Your task to perform on an android device: open app "Walmart Shopping & Grocery" (install if not already installed) and go to login screen Image 0: 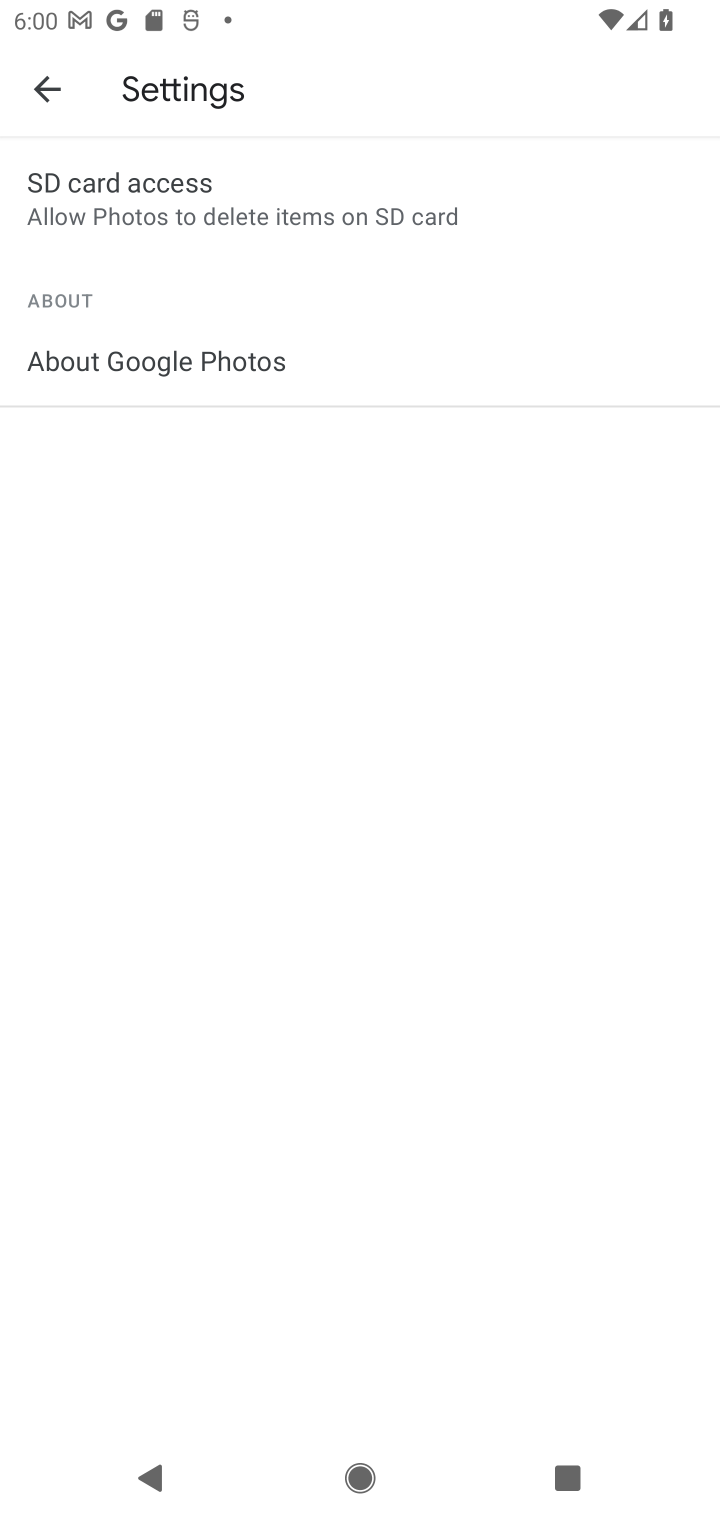
Step 0: press home button
Your task to perform on an android device: open app "Walmart Shopping & Grocery" (install if not already installed) and go to login screen Image 1: 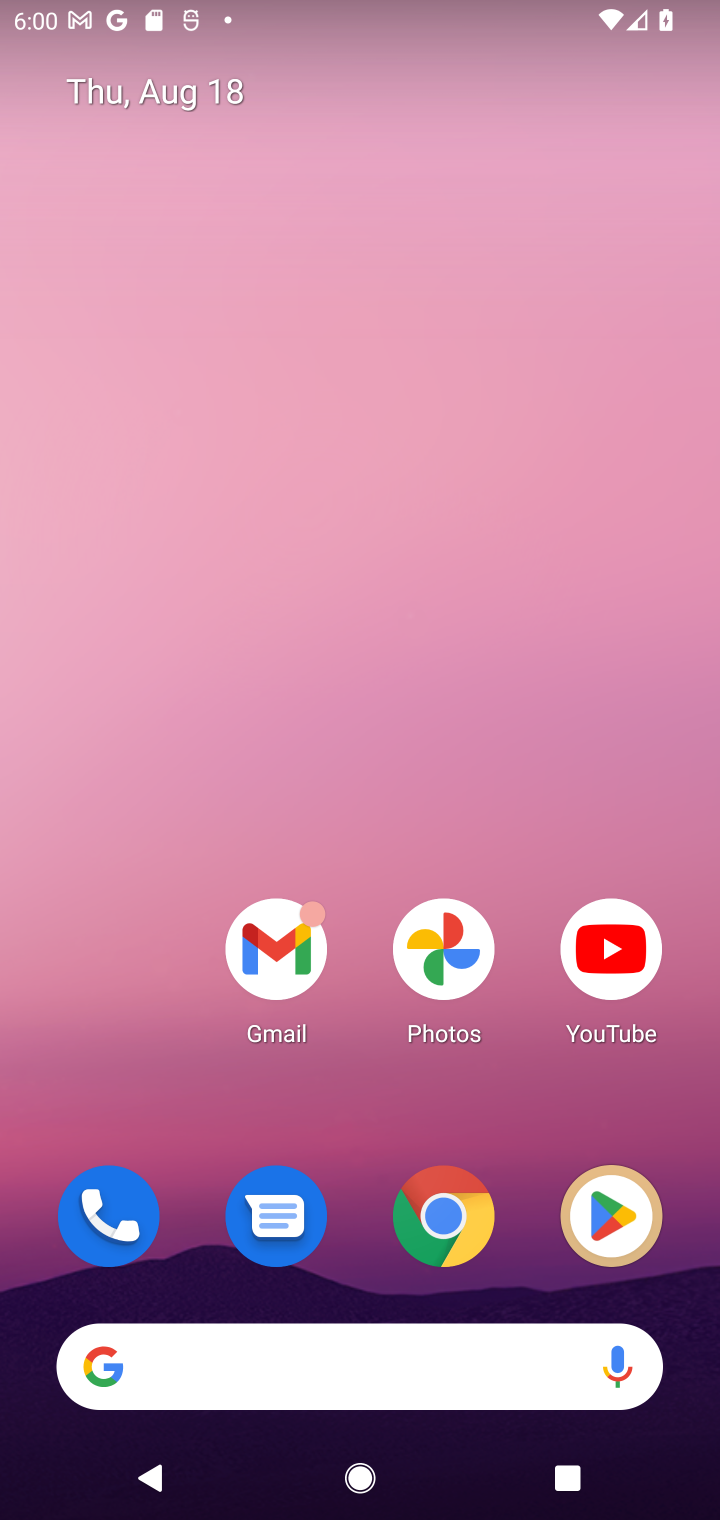
Step 1: click (614, 1213)
Your task to perform on an android device: open app "Walmart Shopping & Grocery" (install if not already installed) and go to login screen Image 2: 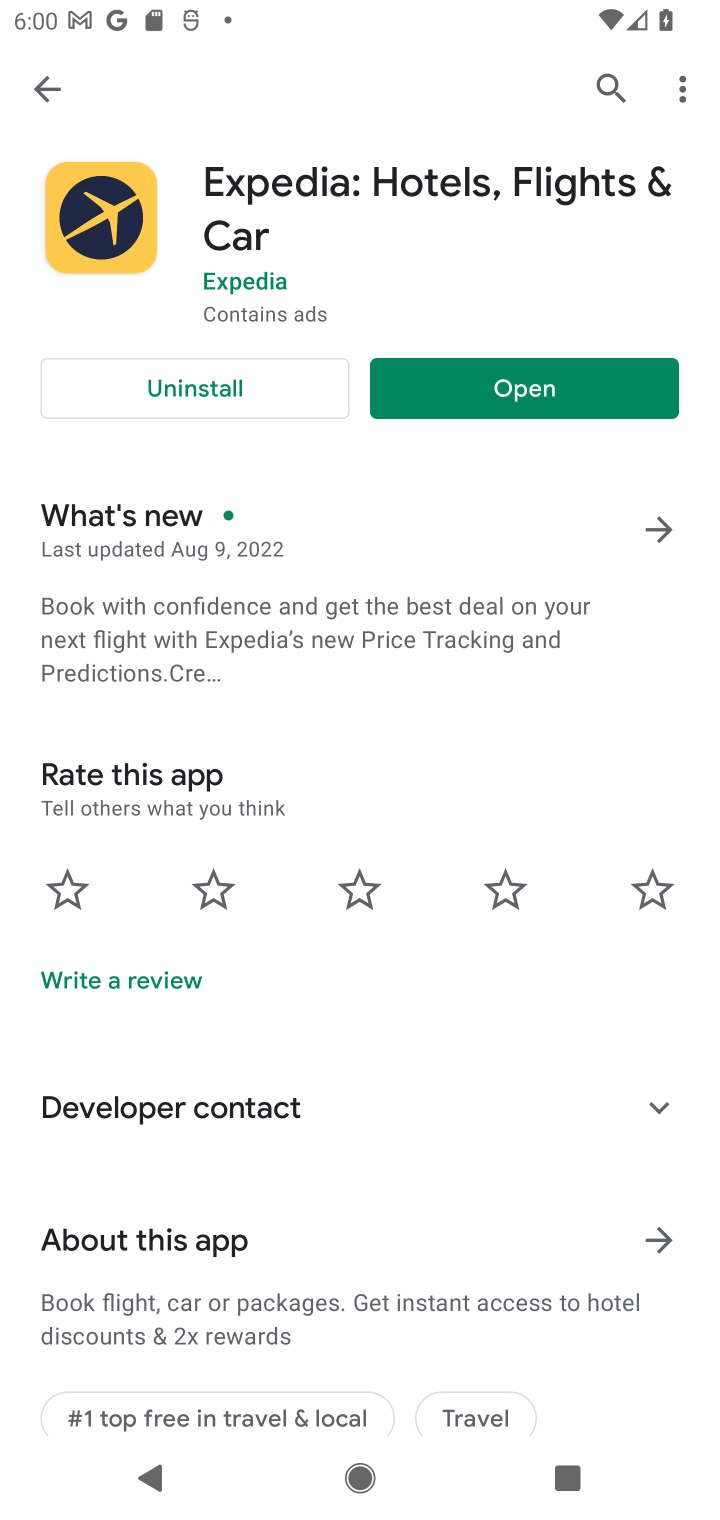
Step 2: click (601, 78)
Your task to perform on an android device: open app "Walmart Shopping & Grocery" (install if not already installed) and go to login screen Image 3: 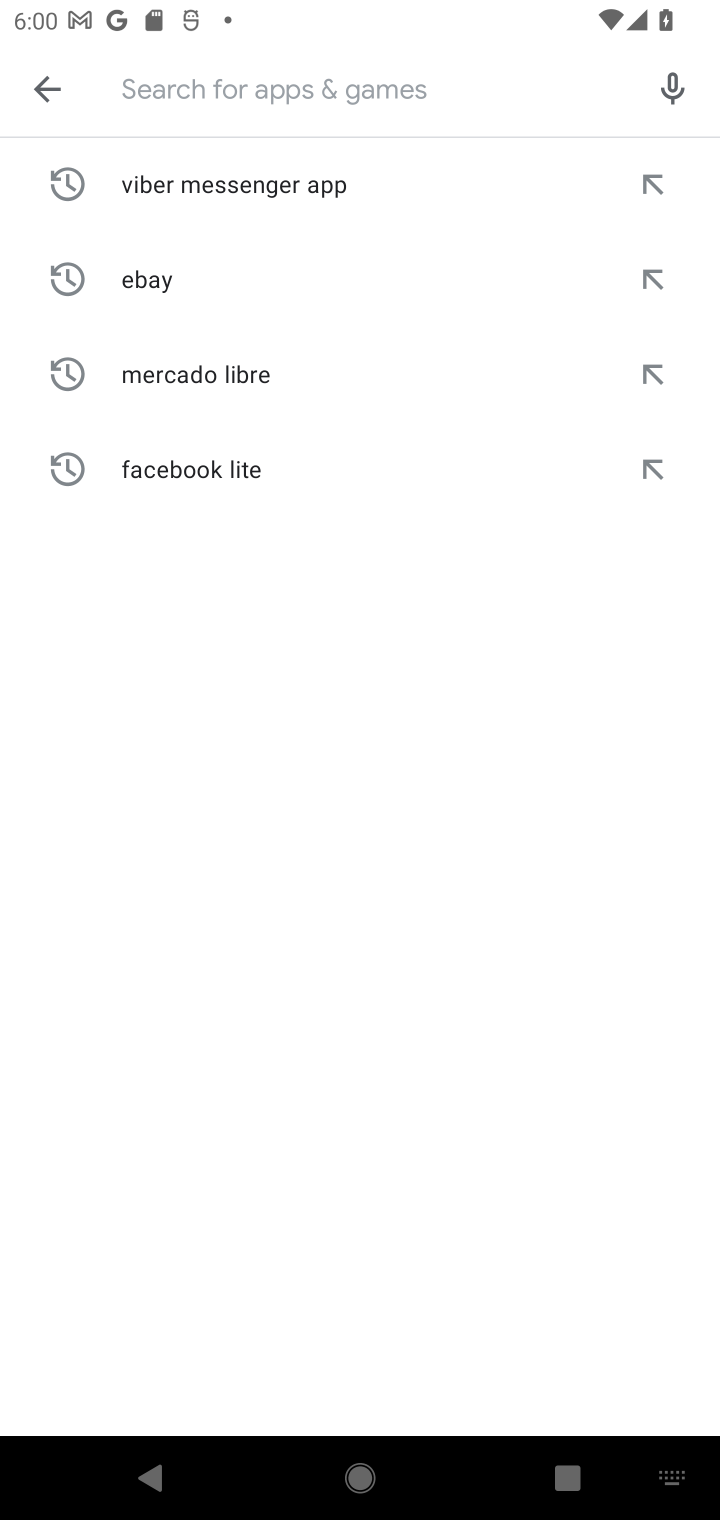
Step 3: type "Walmart Shopping & Grocery"
Your task to perform on an android device: open app "Walmart Shopping & Grocery" (install if not already installed) and go to login screen Image 4: 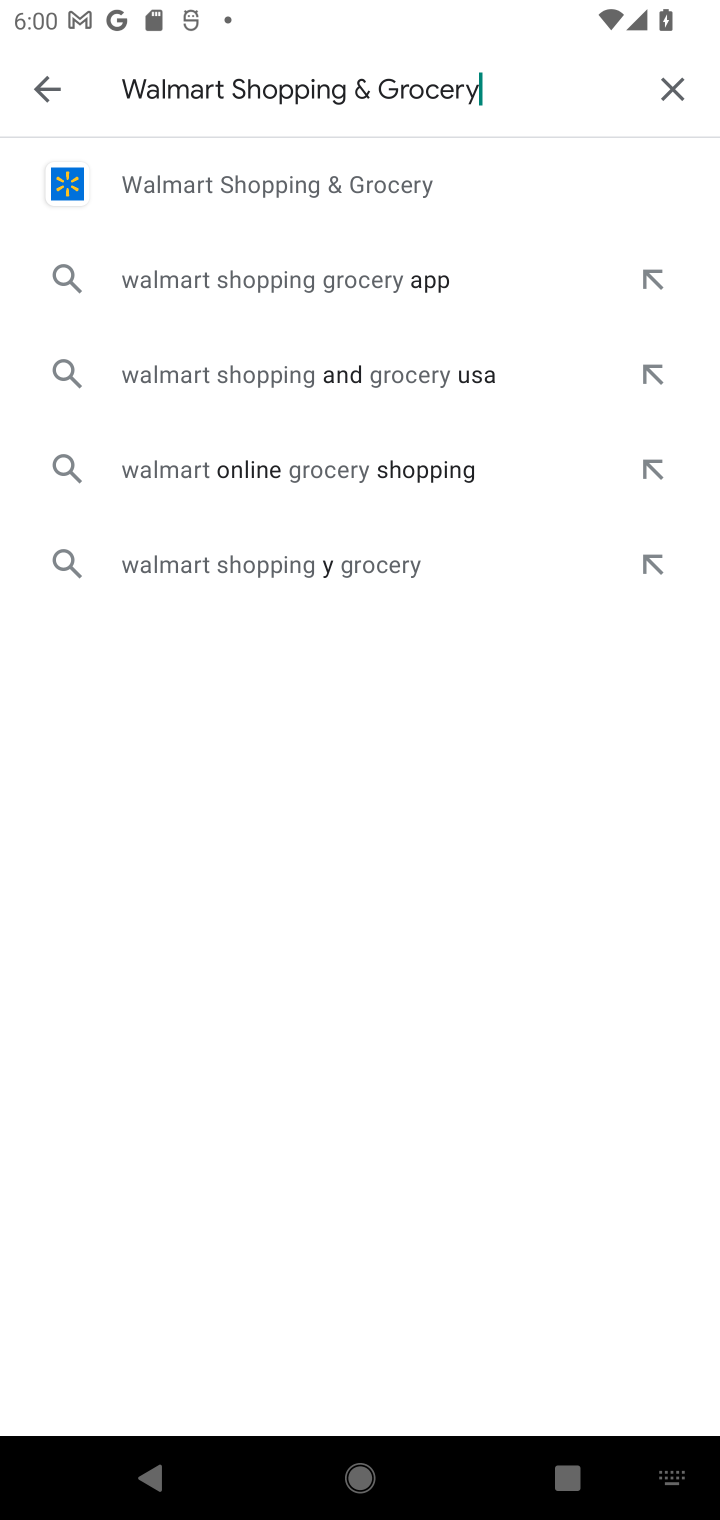
Step 4: click (228, 171)
Your task to perform on an android device: open app "Walmart Shopping & Grocery" (install if not already installed) and go to login screen Image 5: 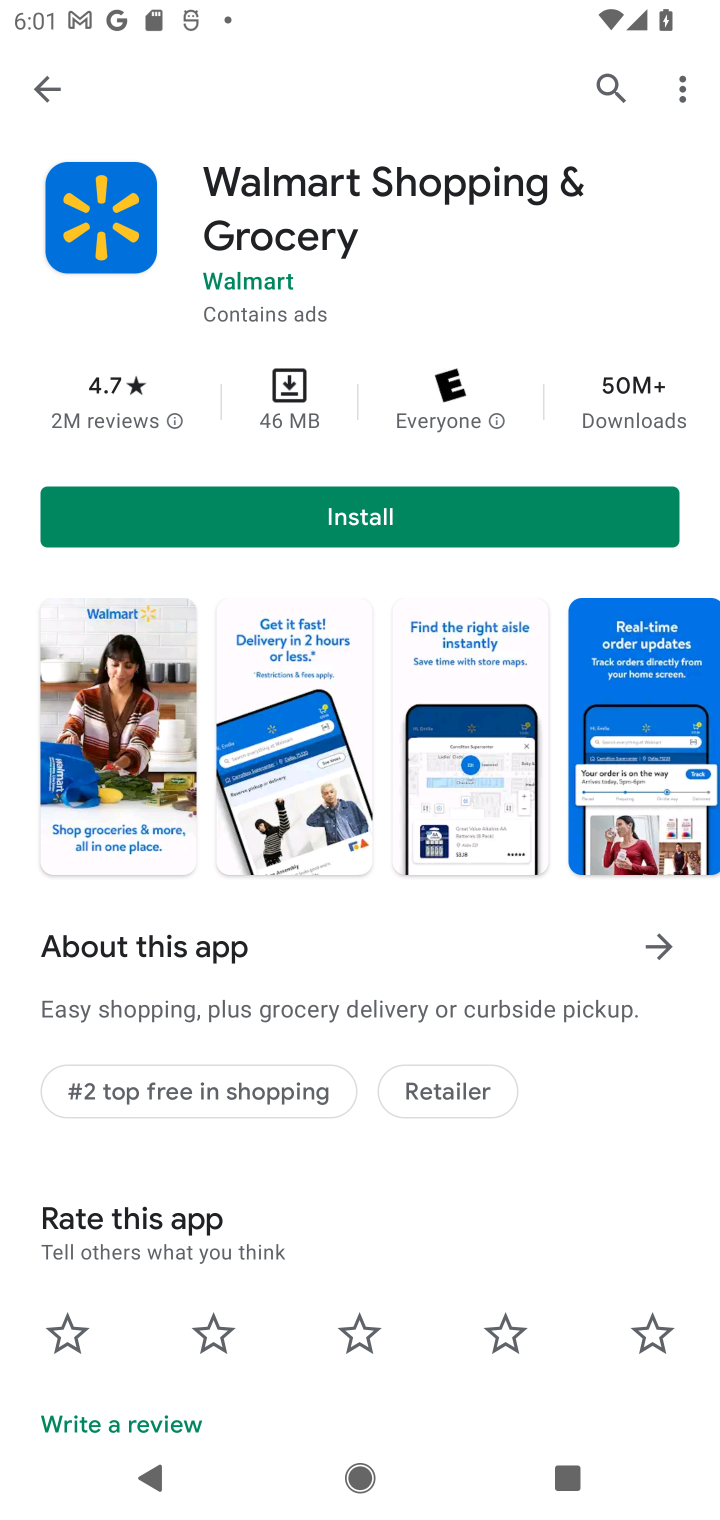
Step 5: click (368, 515)
Your task to perform on an android device: open app "Walmart Shopping & Grocery" (install if not already installed) and go to login screen Image 6: 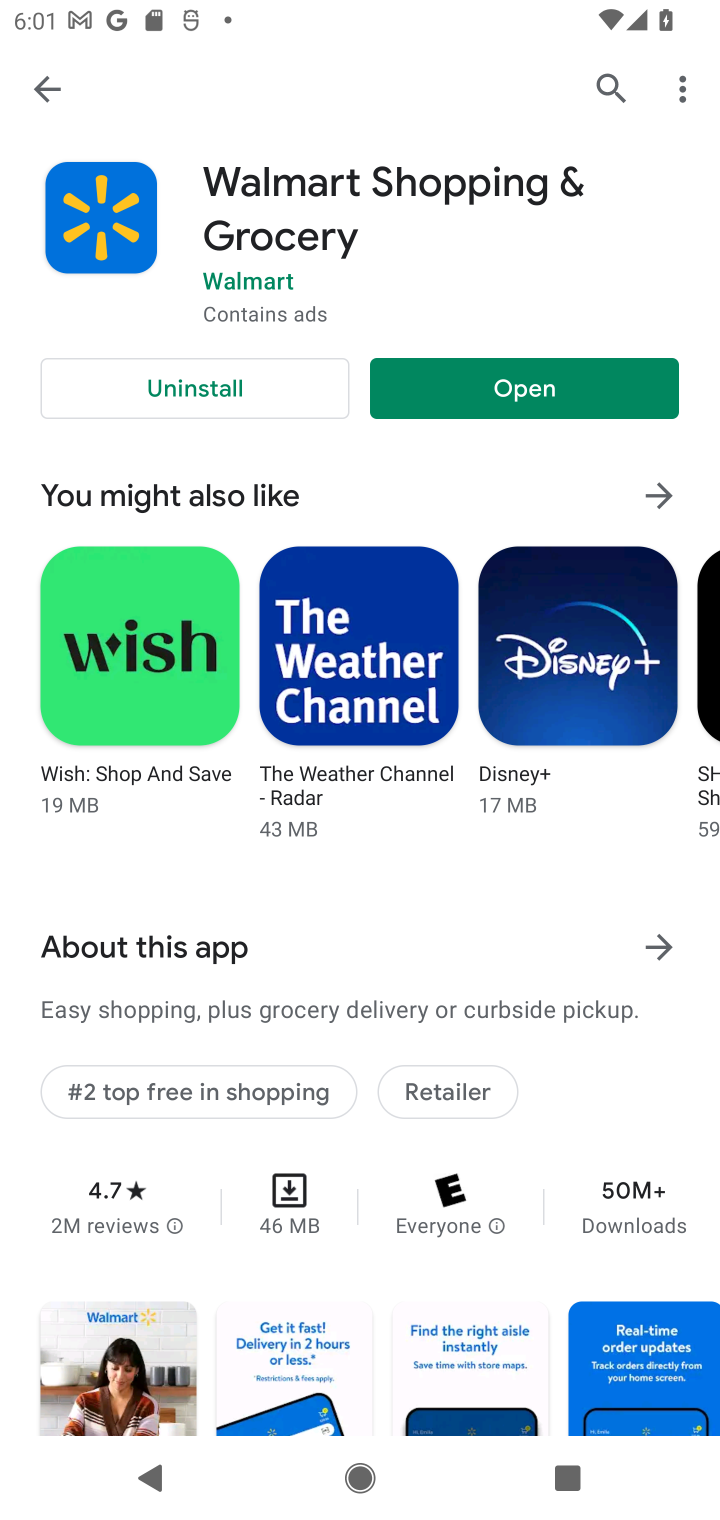
Step 6: click (526, 388)
Your task to perform on an android device: open app "Walmart Shopping & Grocery" (install if not already installed) and go to login screen Image 7: 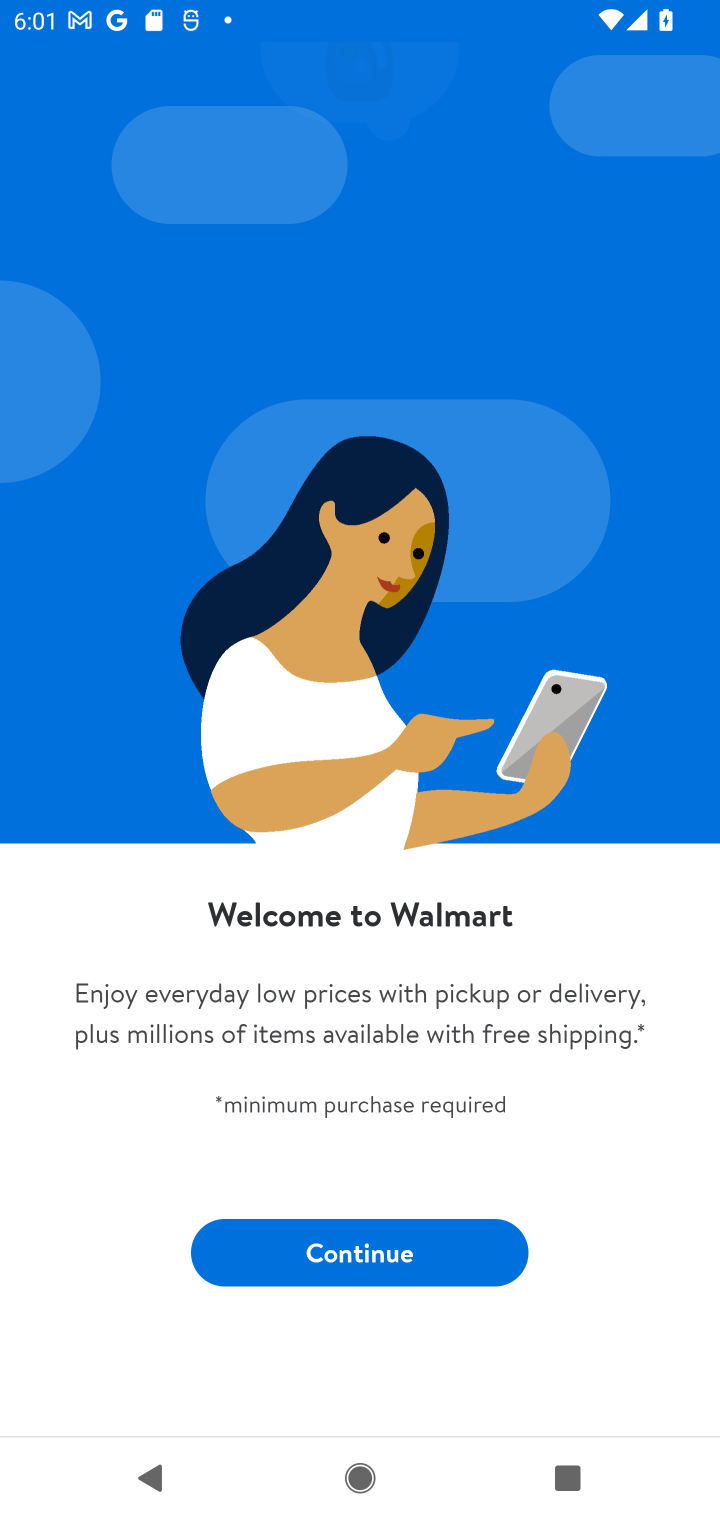
Step 7: click (364, 1256)
Your task to perform on an android device: open app "Walmart Shopping & Grocery" (install if not already installed) and go to login screen Image 8: 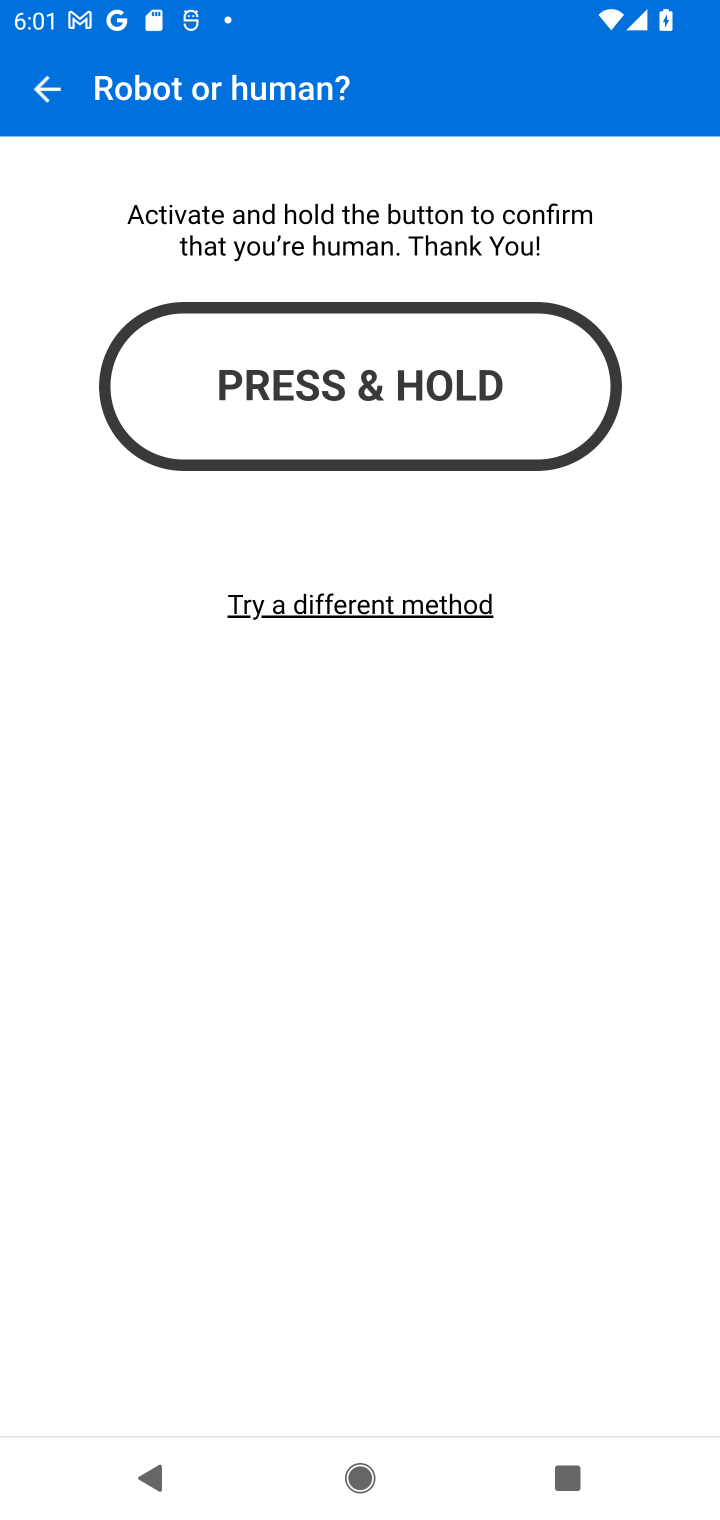
Step 8: task complete